Your task to perform on an android device: turn on wifi Image 0: 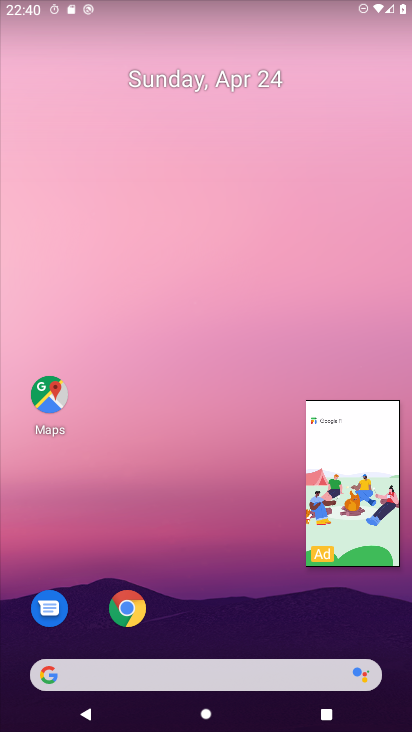
Step 0: drag from (235, 539) to (213, 94)
Your task to perform on an android device: turn on wifi Image 1: 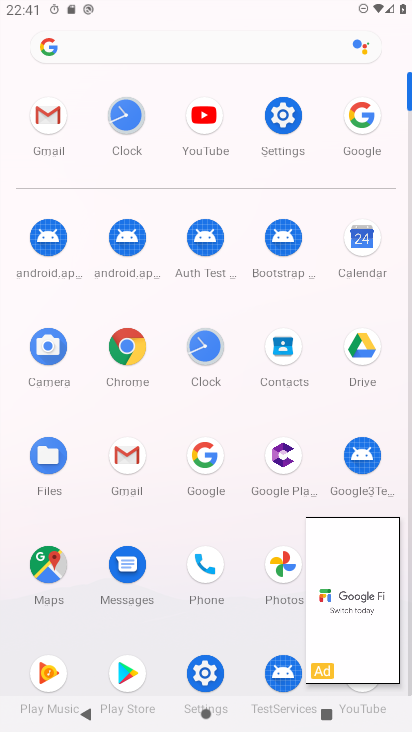
Step 1: click (276, 102)
Your task to perform on an android device: turn on wifi Image 2: 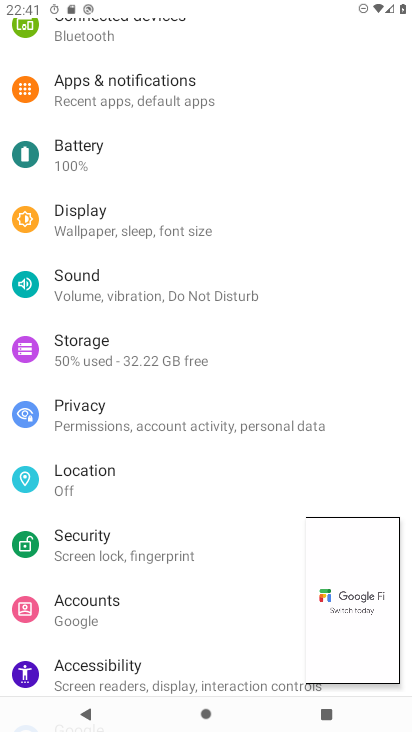
Step 2: drag from (239, 161) to (231, 458)
Your task to perform on an android device: turn on wifi Image 3: 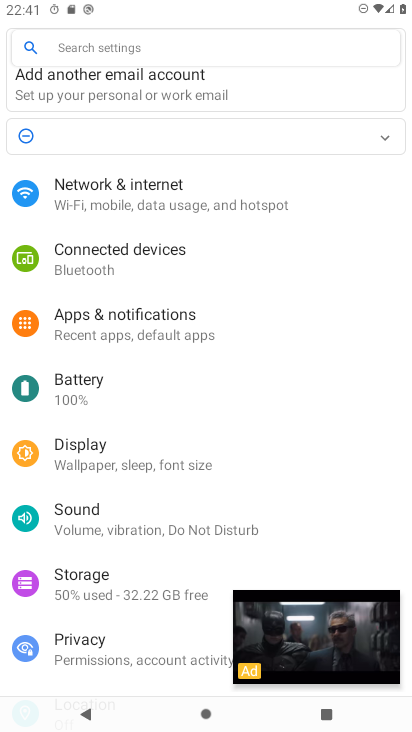
Step 3: click (183, 195)
Your task to perform on an android device: turn on wifi Image 4: 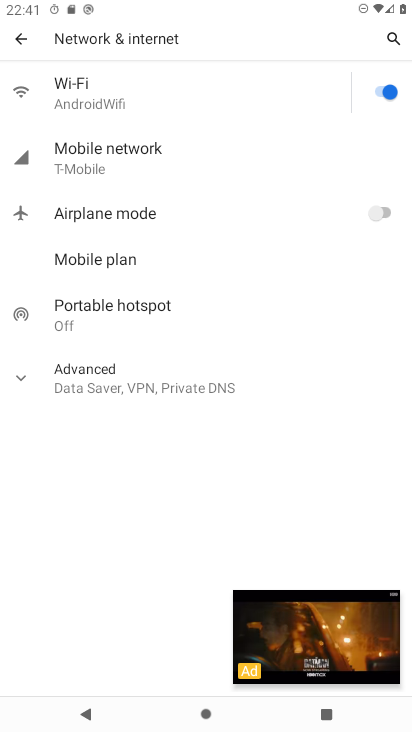
Step 4: task complete